Your task to perform on an android device: Go to Android settings Image 0: 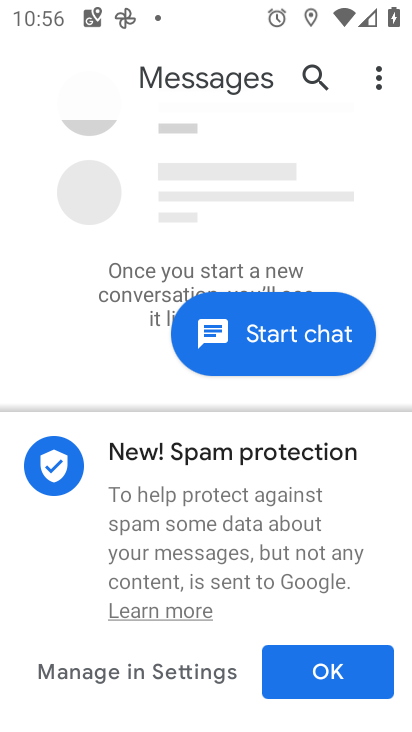
Step 0: press home button
Your task to perform on an android device: Go to Android settings Image 1: 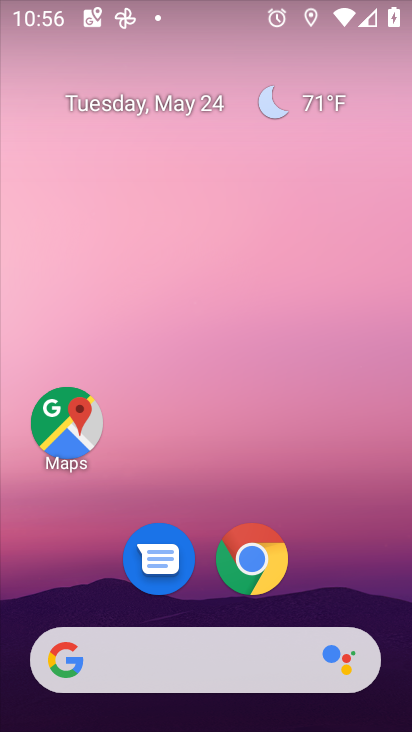
Step 1: drag from (393, 650) to (248, 52)
Your task to perform on an android device: Go to Android settings Image 2: 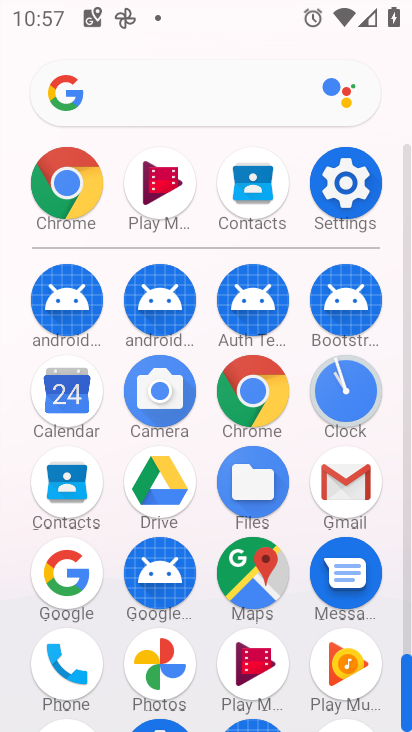
Step 2: click (325, 200)
Your task to perform on an android device: Go to Android settings Image 3: 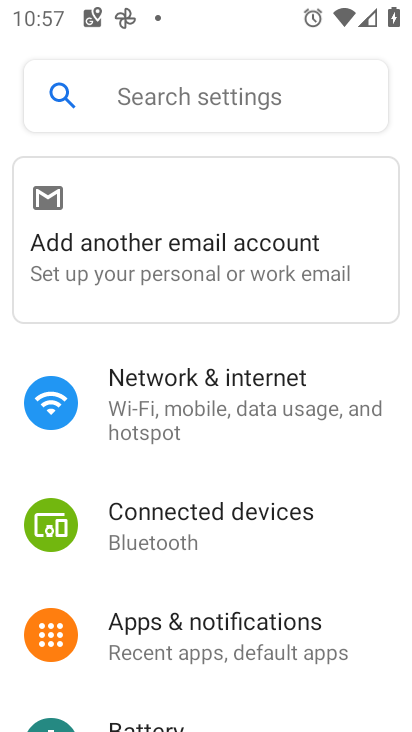
Step 3: drag from (276, 621) to (206, 94)
Your task to perform on an android device: Go to Android settings Image 4: 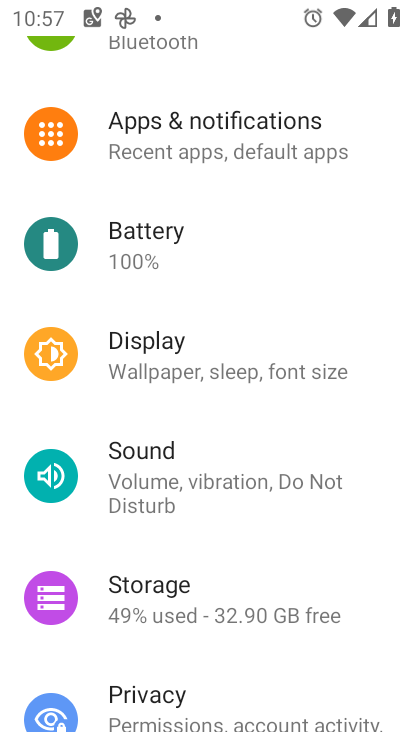
Step 4: drag from (176, 644) to (257, 255)
Your task to perform on an android device: Go to Android settings Image 5: 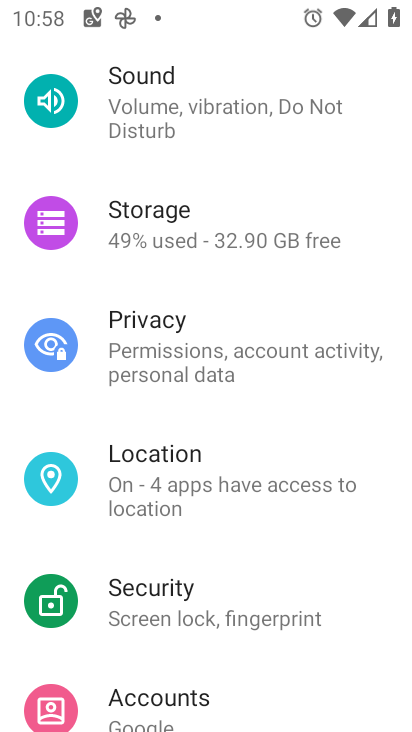
Step 5: drag from (204, 699) to (206, 133)
Your task to perform on an android device: Go to Android settings Image 6: 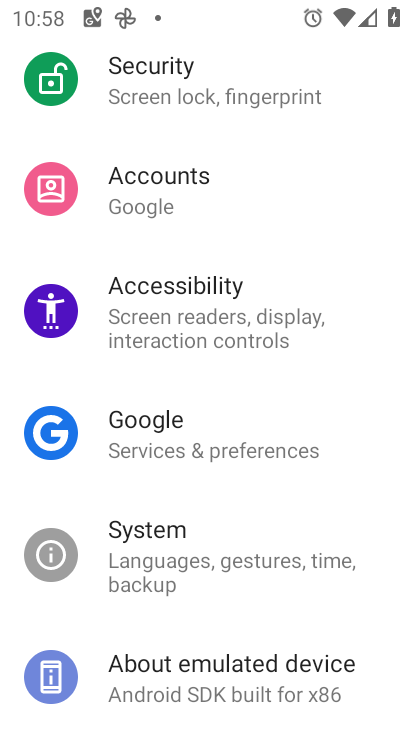
Step 6: click (205, 665)
Your task to perform on an android device: Go to Android settings Image 7: 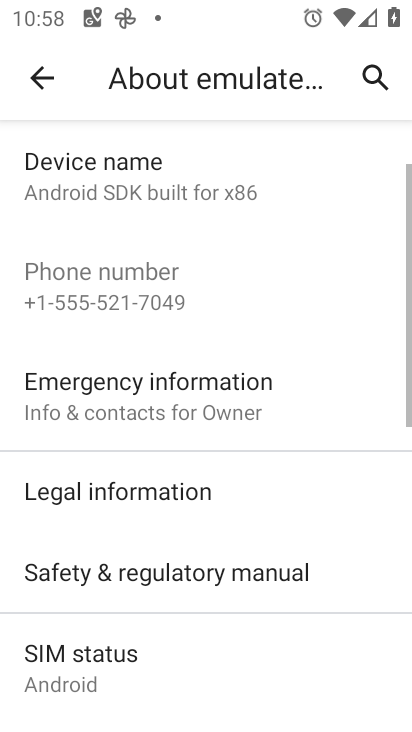
Step 7: drag from (203, 635) to (166, 208)
Your task to perform on an android device: Go to Android settings Image 8: 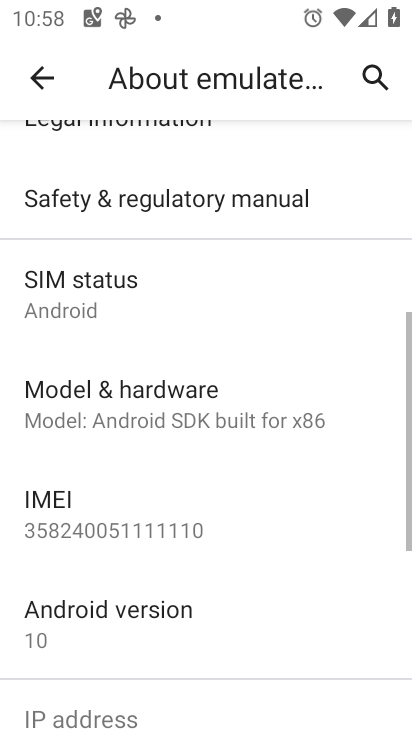
Step 8: click (213, 637)
Your task to perform on an android device: Go to Android settings Image 9: 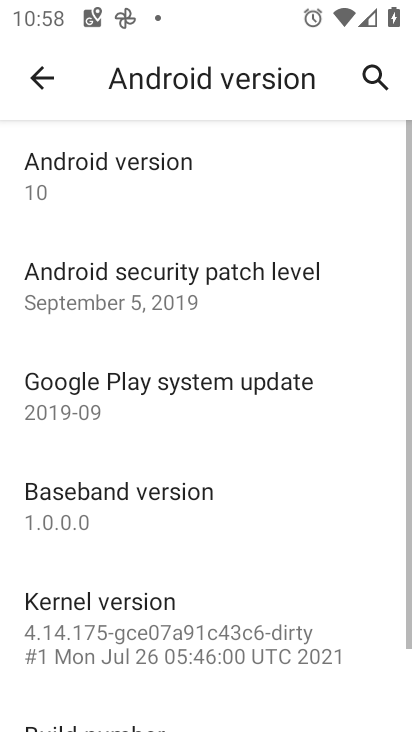
Step 9: task complete